Your task to perform on an android device: open device folders in google photos Image 0: 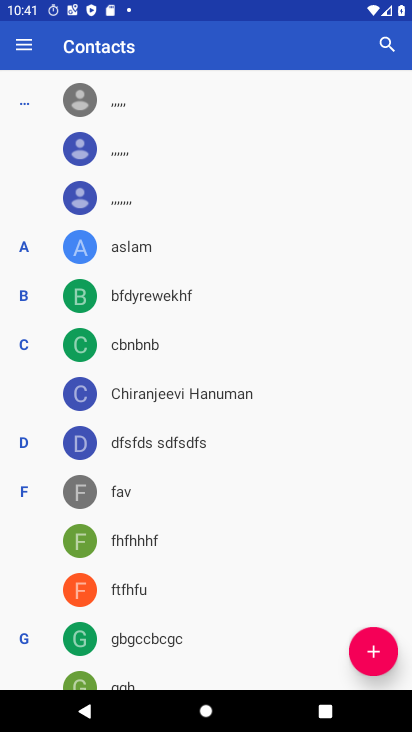
Step 0: press home button
Your task to perform on an android device: open device folders in google photos Image 1: 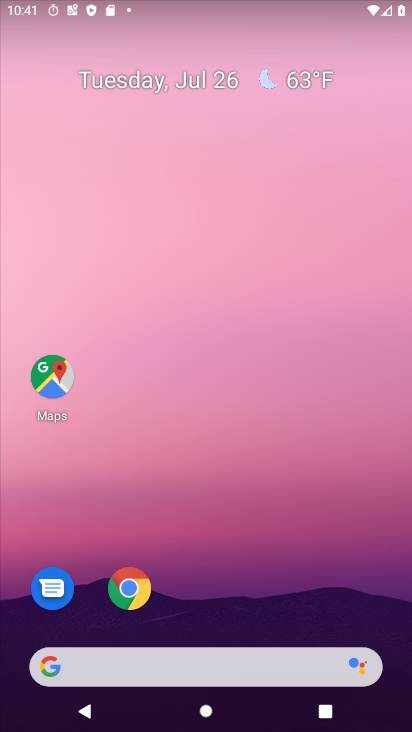
Step 1: drag from (181, 638) to (206, 169)
Your task to perform on an android device: open device folders in google photos Image 2: 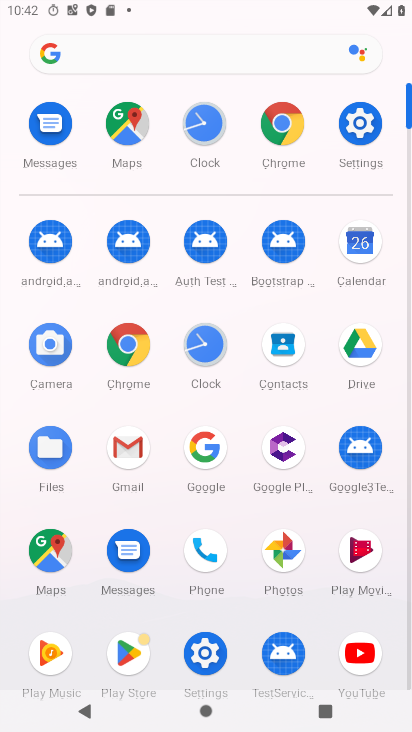
Step 2: click (312, 554)
Your task to perform on an android device: open device folders in google photos Image 3: 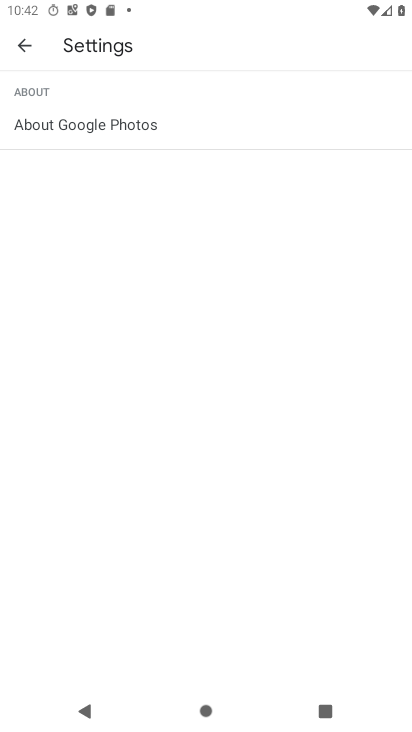
Step 3: click (21, 50)
Your task to perform on an android device: open device folders in google photos Image 4: 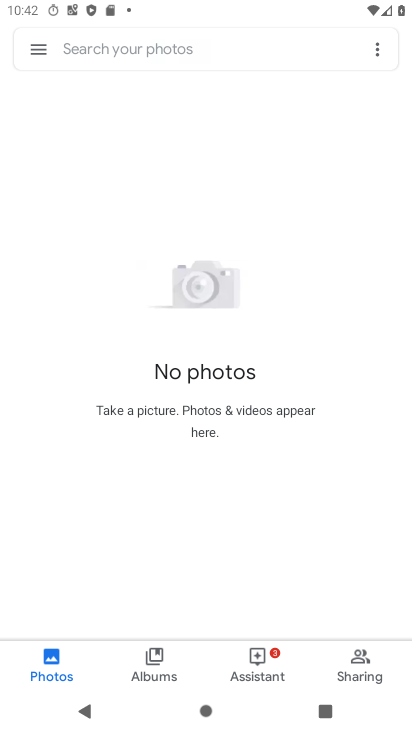
Step 4: click (21, 50)
Your task to perform on an android device: open device folders in google photos Image 5: 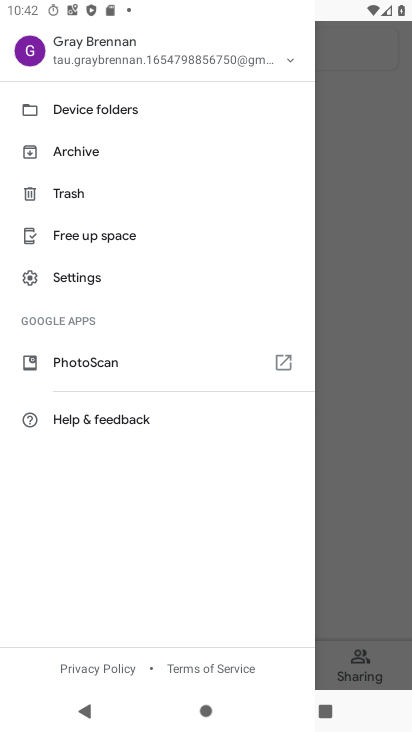
Step 5: click (51, 106)
Your task to perform on an android device: open device folders in google photos Image 6: 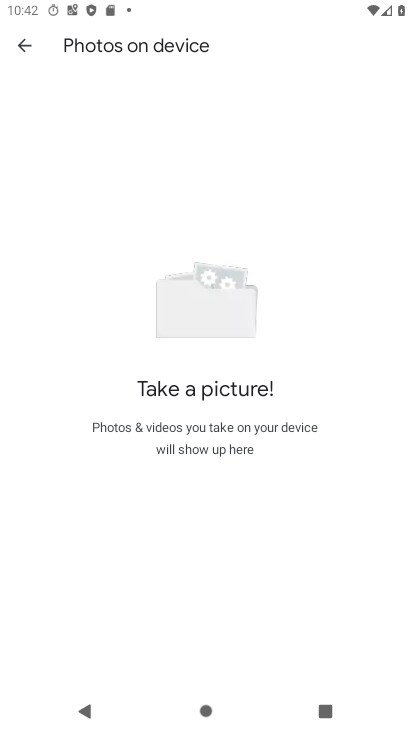
Step 6: task complete